Your task to perform on an android device: toggle pop-ups in chrome Image 0: 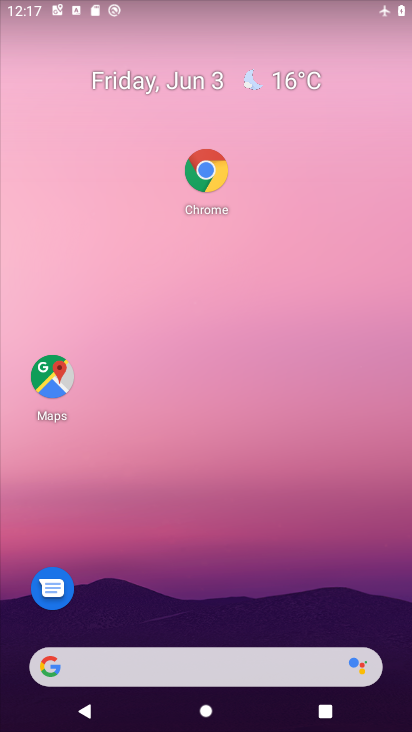
Step 0: drag from (243, 523) to (290, 266)
Your task to perform on an android device: toggle pop-ups in chrome Image 1: 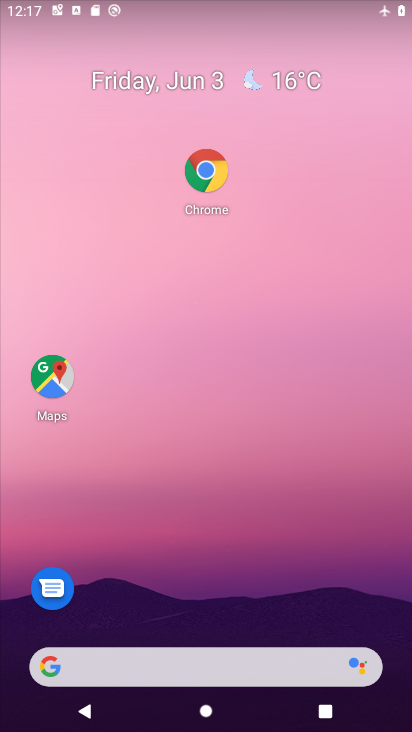
Step 1: drag from (224, 558) to (248, 362)
Your task to perform on an android device: toggle pop-ups in chrome Image 2: 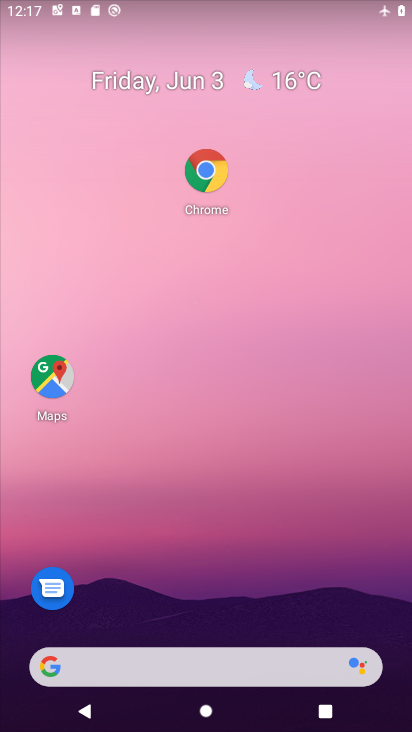
Step 2: drag from (217, 675) to (282, 177)
Your task to perform on an android device: toggle pop-ups in chrome Image 3: 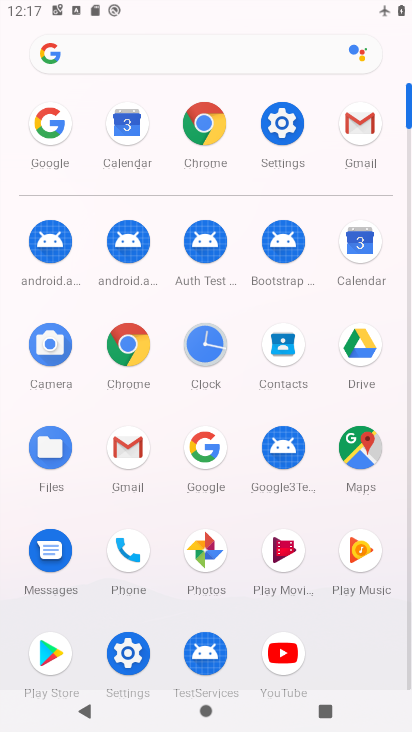
Step 3: click (211, 147)
Your task to perform on an android device: toggle pop-ups in chrome Image 4: 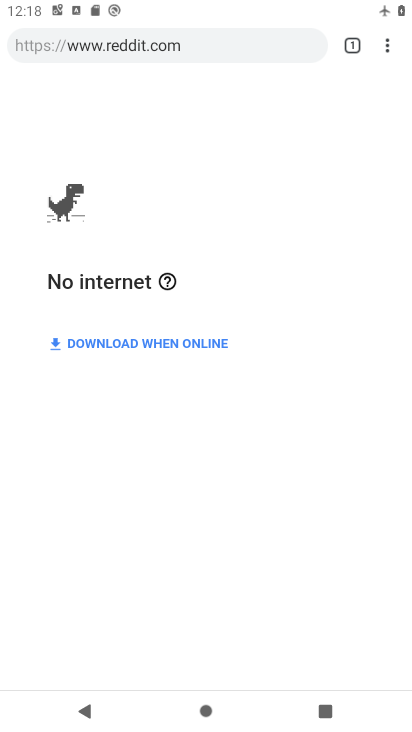
Step 4: click (392, 54)
Your task to perform on an android device: toggle pop-ups in chrome Image 5: 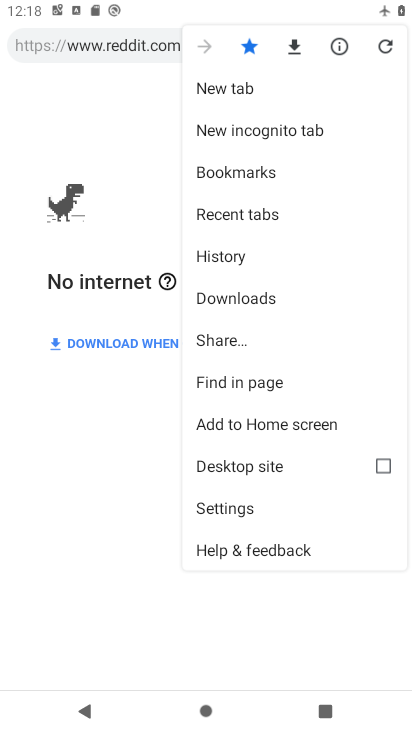
Step 5: click (244, 509)
Your task to perform on an android device: toggle pop-ups in chrome Image 6: 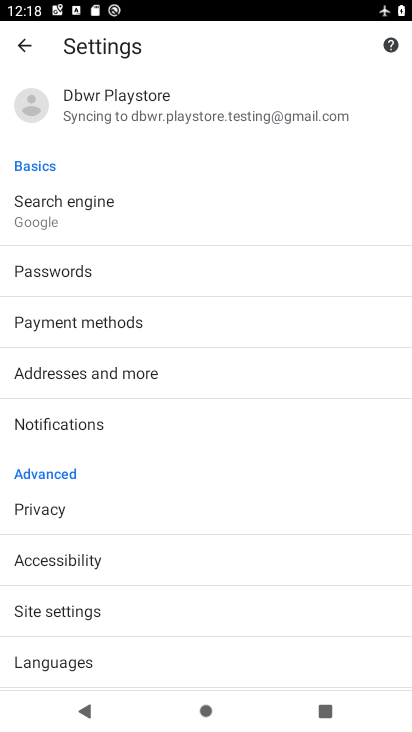
Step 6: click (101, 616)
Your task to perform on an android device: toggle pop-ups in chrome Image 7: 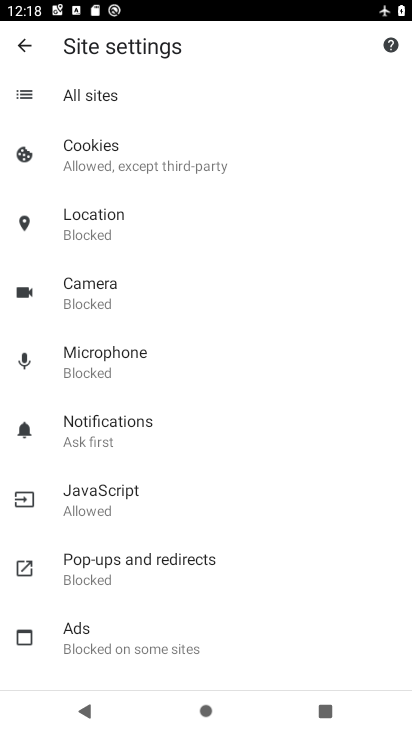
Step 7: click (122, 578)
Your task to perform on an android device: toggle pop-ups in chrome Image 8: 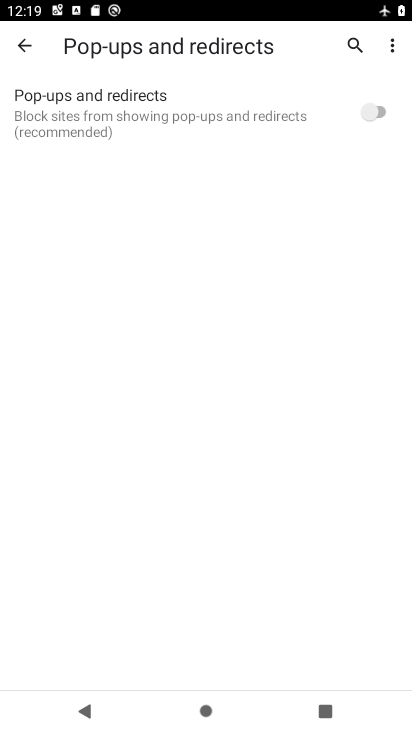
Step 8: click (316, 111)
Your task to perform on an android device: toggle pop-ups in chrome Image 9: 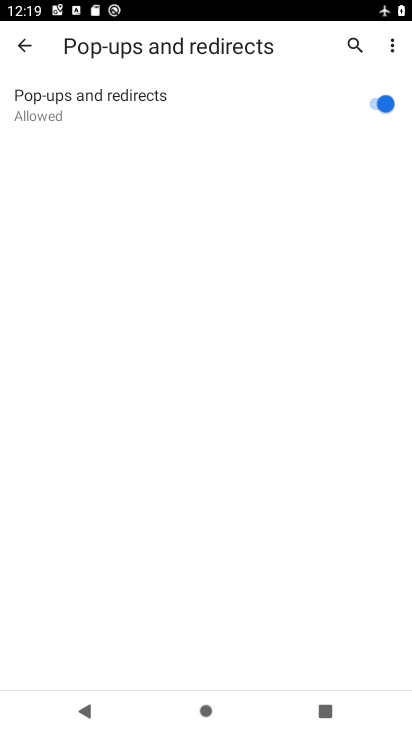
Step 9: task complete